Your task to perform on an android device: Go to Android settings Image 0: 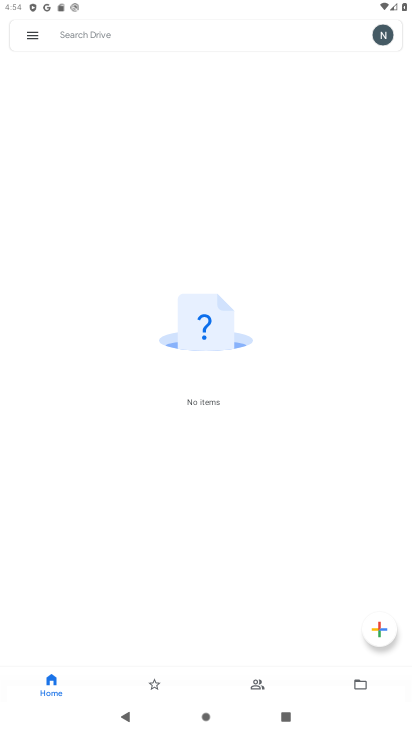
Step 0: press home button
Your task to perform on an android device: Go to Android settings Image 1: 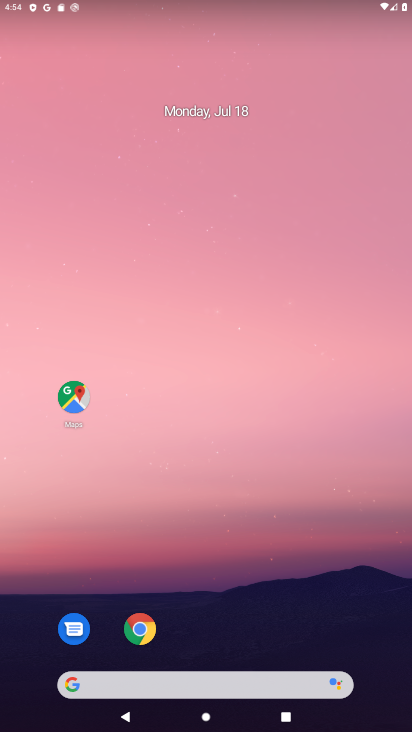
Step 1: drag from (356, 590) to (345, 105)
Your task to perform on an android device: Go to Android settings Image 2: 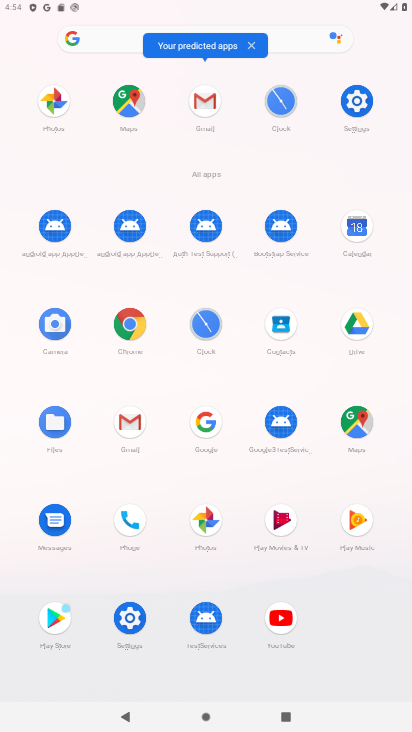
Step 2: click (355, 98)
Your task to perform on an android device: Go to Android settings Image 3: 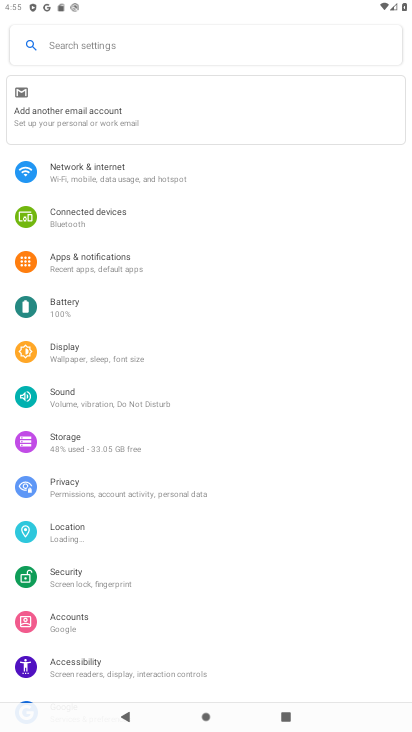
Step 3: task complete